Your task to perform on an android device: Open CNN.com Image 0: 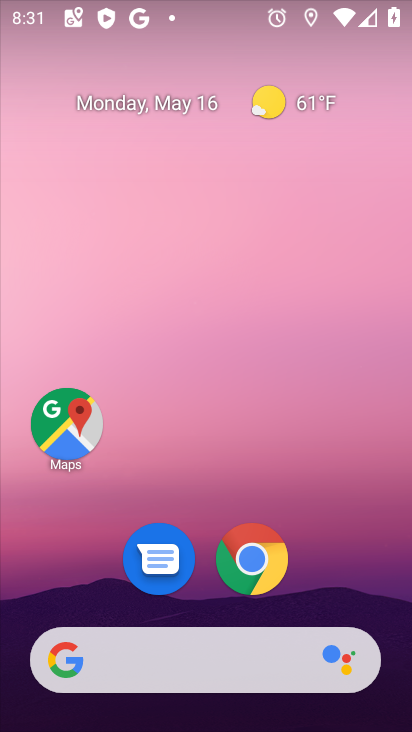
Step 0: drag from (370, 562) to (379, 152)
Your task to perform on an android device: Open CNN.com Image 1: 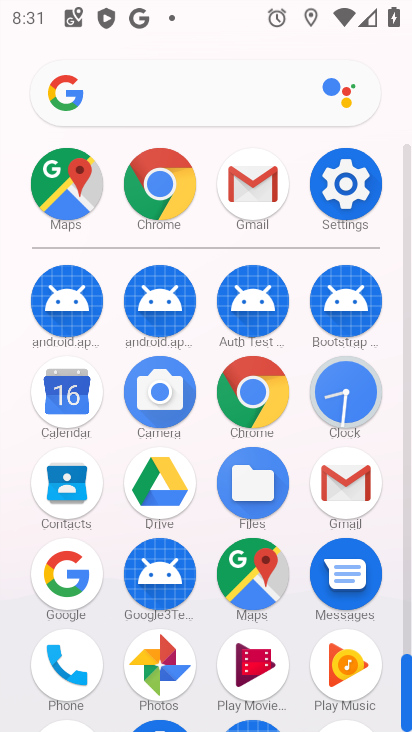
Step 1: click (257, 396)
Your task to perform on an android device: Open CNN.com Image 2: 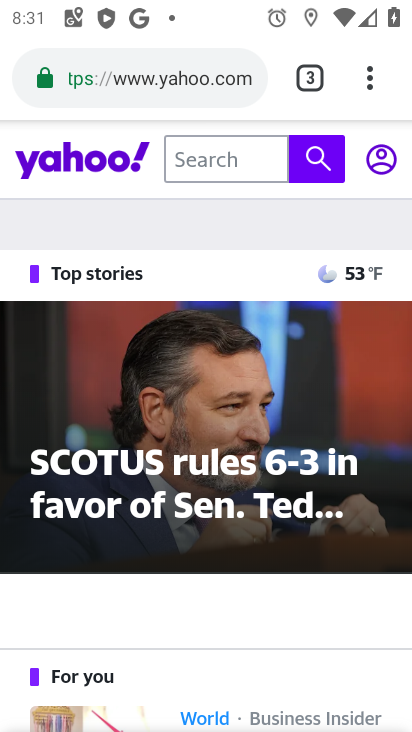
Step 2: click (163, 82)
Your task to perform on an android device: Open CNN.com Image 3: 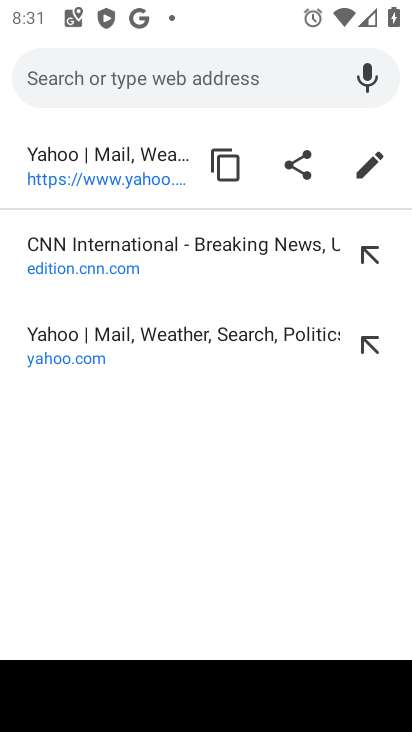
Step 3: type "cnn.com"
Your task to perform on an android device: Open CNN.com Image 4: 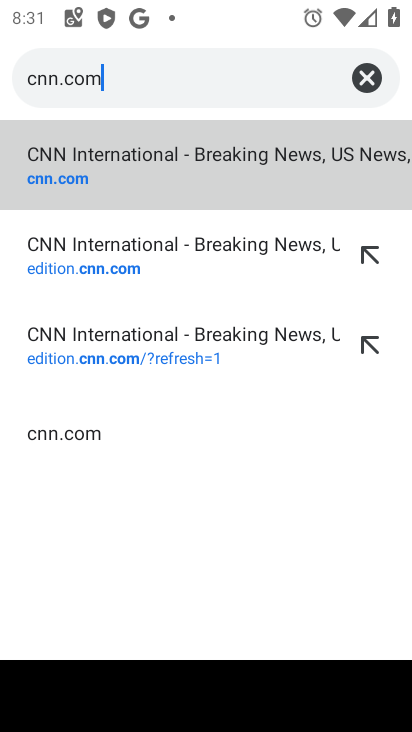
Step 4: click (55, 151)
Your task to perform on an android device: Open CNN.com Image 5: 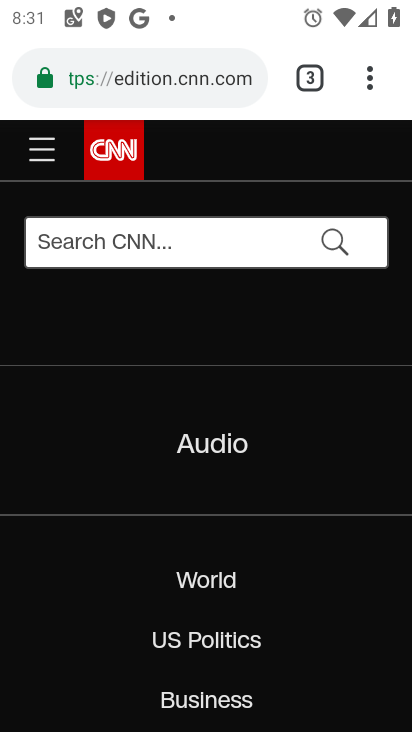
Step 5: task complete